Your task to perform on an android device: Open the calendar app, open the side menu, and click the "Day" option Image 0: 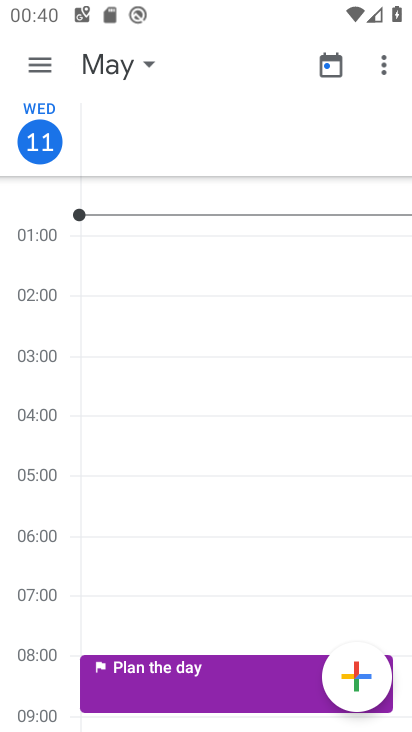
Step 0: click (42, 71)
Your task to perform on an android device: Open the calendar app, open the side menu, and click the "Day" option Image 1: 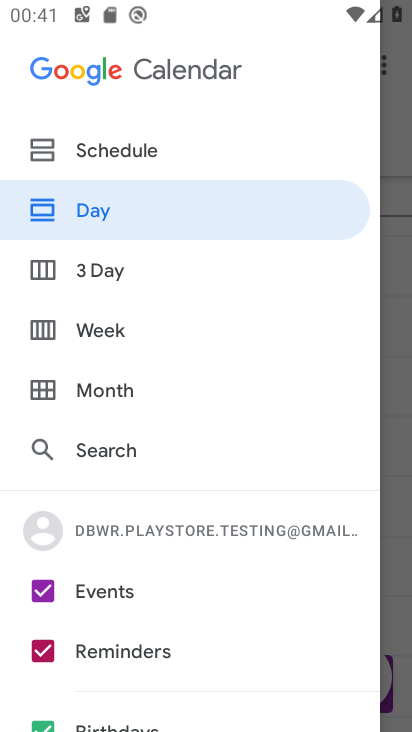
Step 1: click (189, 198)
Your task to perform on an android device: Open the calendar app, open the side menu, and click the "Day" option Image 2: 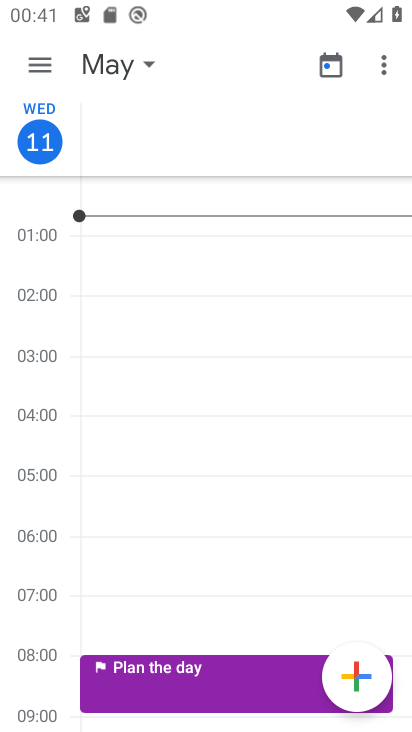
Step 2: task complete